Your task to perform on an android device: Open display settings Image 0: 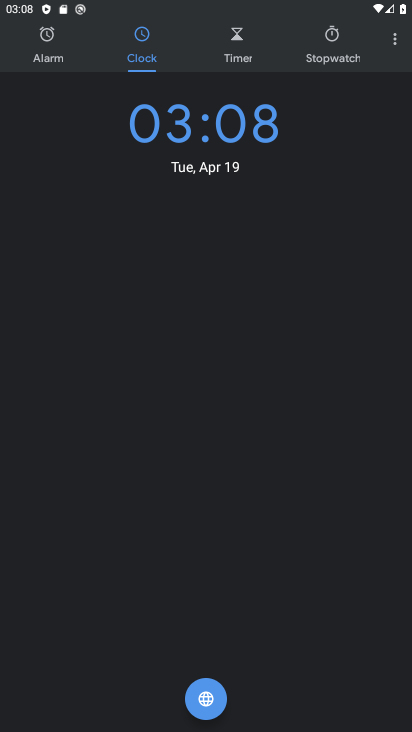
Step 0: press home button
Your task to perform on an android device: Open display settings Image 1: 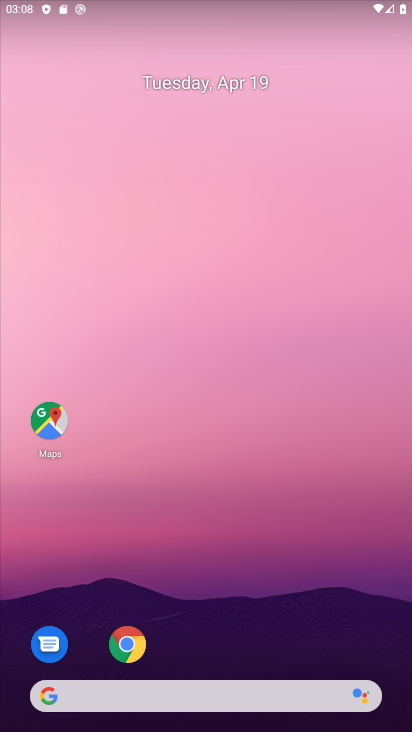
Step 1: drag from (298, 620) to (264, 288)
Your task to perform on an android device: Open display settings Image 2: 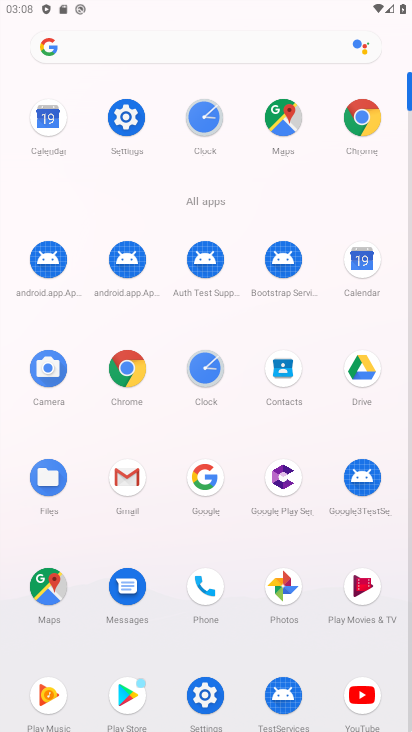
Step 2: click (209, 694)
Your task to perform on an android device: Open display settings Image 3: 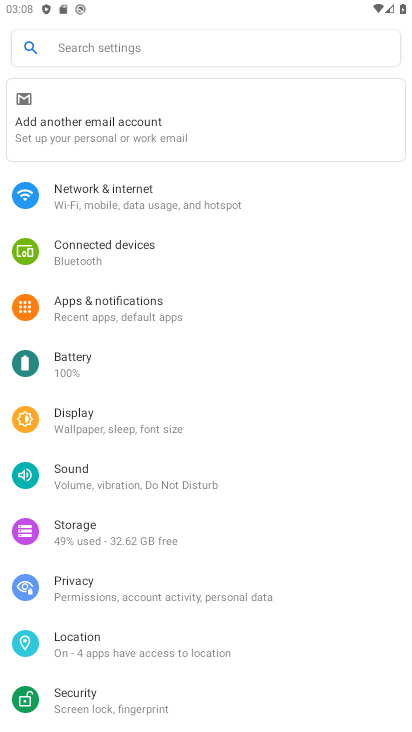
Step 3: click (73, 421)
Your task to perform on an android device: Open display settings Image 4: 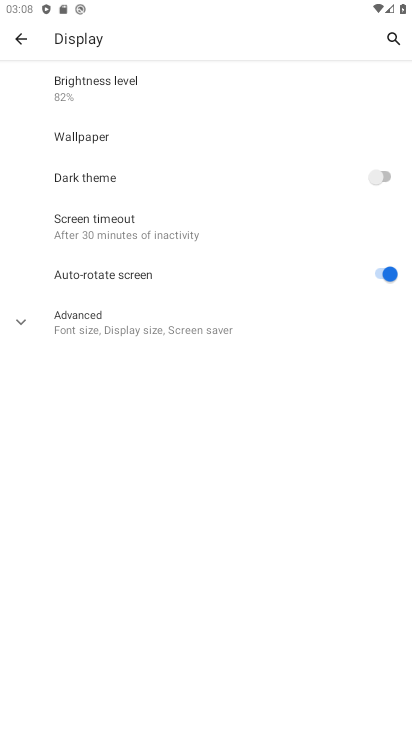
Step 4: click (21, 320)
Your task to perform on an android device: Open display settings Image 5: 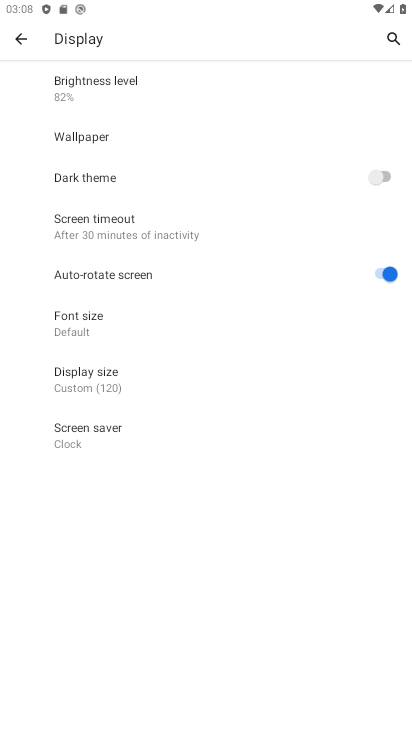
Step 5: task complete